Your task to perform on an android device: Open Google Maps Image 0: 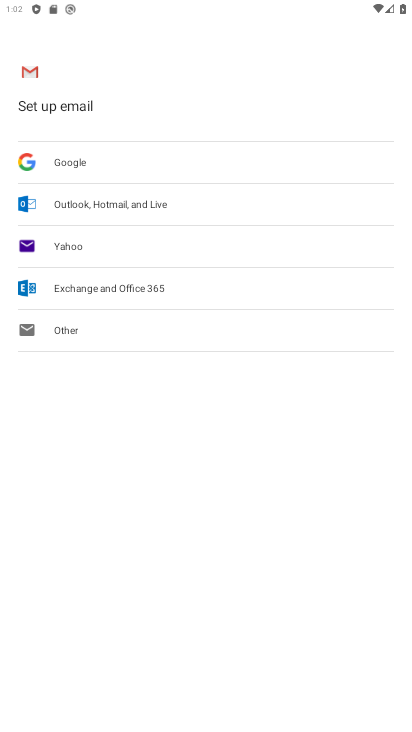
Step 0: press home button
Your task to perform on an android device: Open Google Maps Image 1: 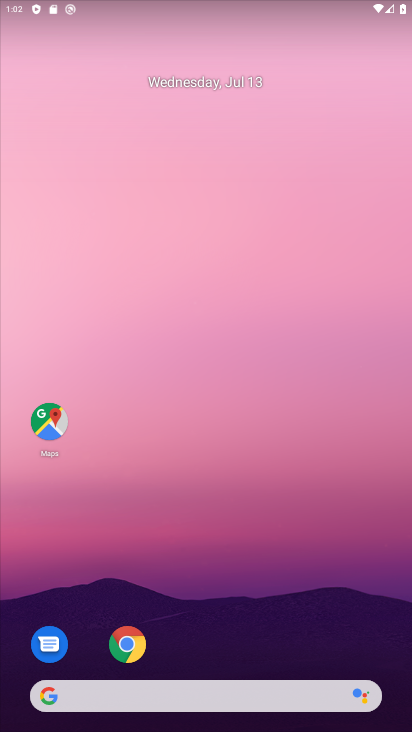
Step 1: click (39, 424)
Your task to perform on an android device: Open Google Maps Image 2: 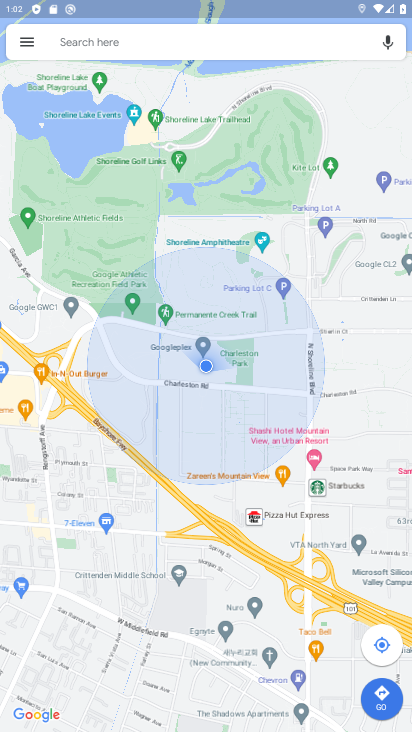
Step 2: task complete